Your task to perform on an android device: turn on improve location accuracy Image 0: 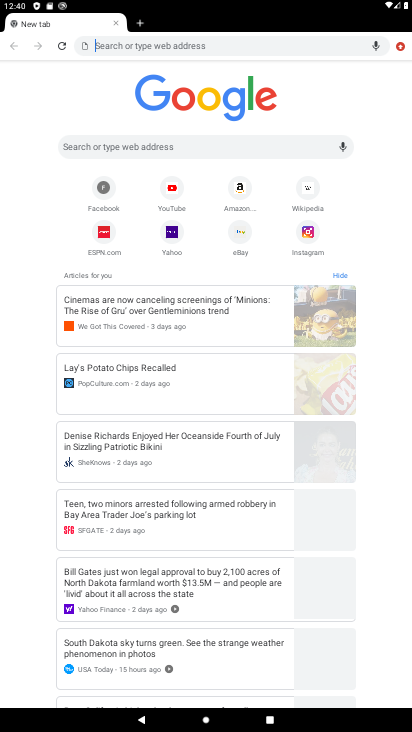
Step 0: press home button
Your task to perform on an android device: turn on improve location accuracy Image 1: 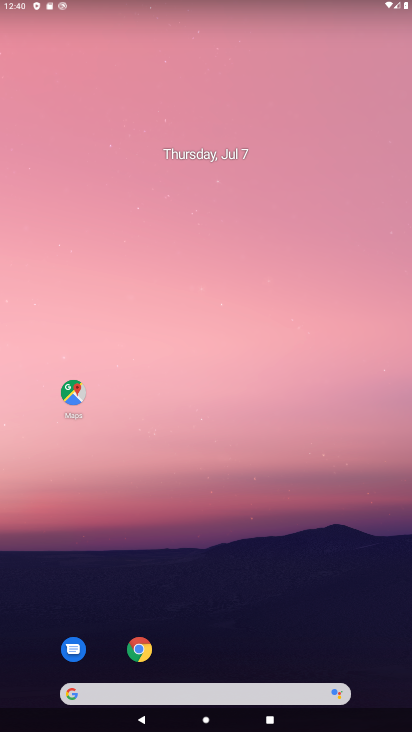
Step 1: drag from (200, 669) to (192, 156)
Your task to perform on an android device: turn on improve location accuracy Image 2: 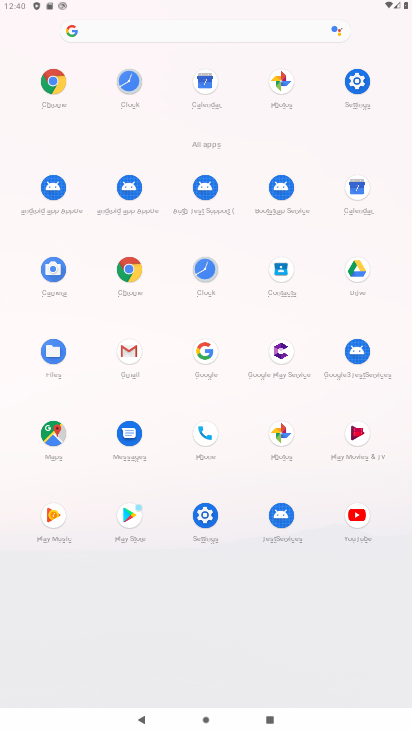
Step 2: click (352, 81)
Your task to perform on an android device: turn on improve location accuracy Image 3: 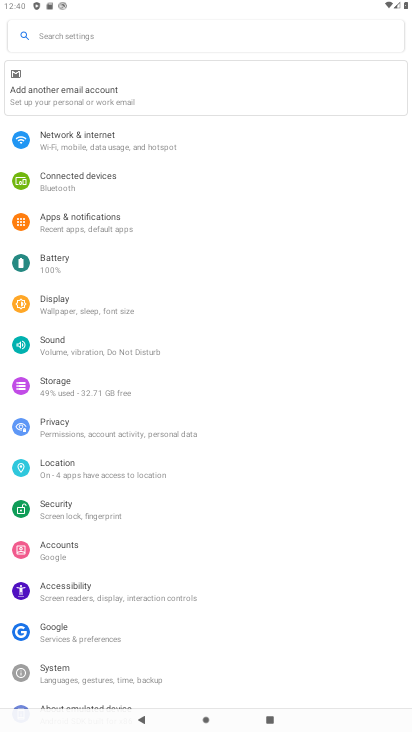
Step 3: click (79, 458)
Your task to perform on an android device: turn on improve location accuracy Image 4: 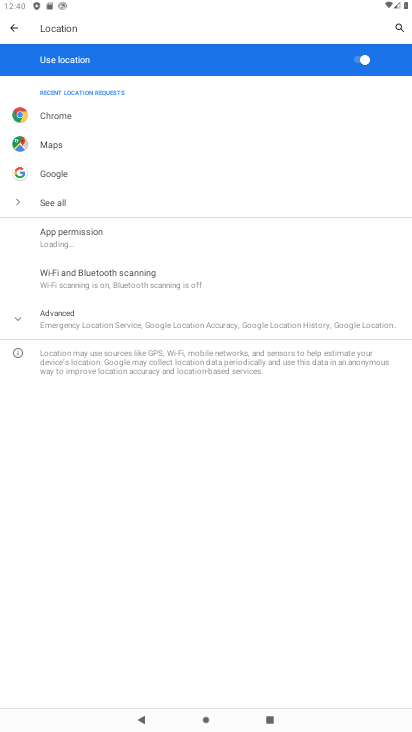
Step 4: click (50, 333)
Your task to perform on an android device: turn on improve location accuracy Image 5: 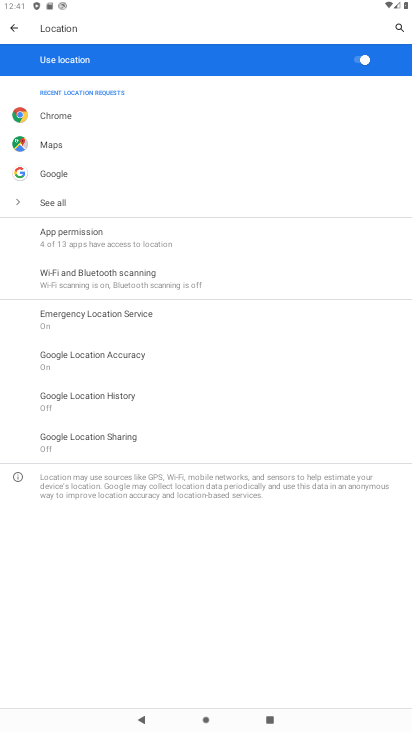
Step 5: click (91, 363)
Your task to perform on an android device: turn on improve location accuracy Image 6: 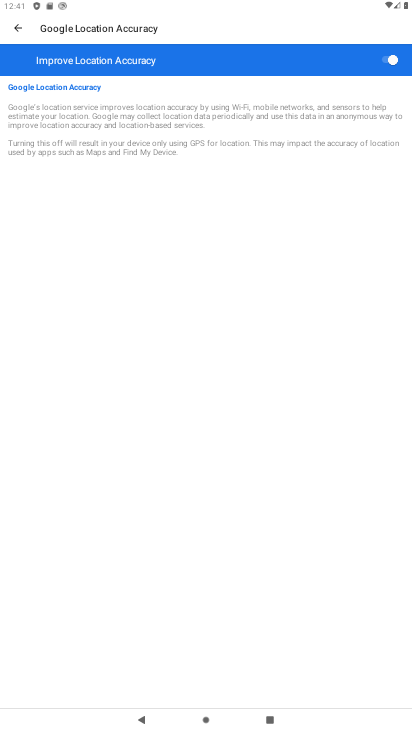
Step 6: task complete